Your task to perform on an android device: change the upload size in google photos Image 0: 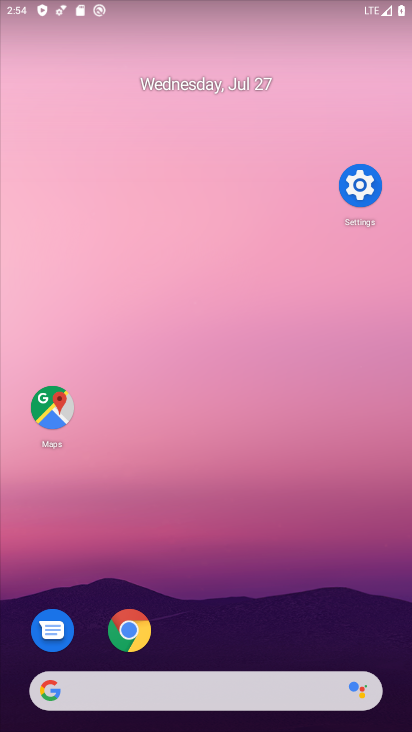
Step 0: press home button
Your task to perform on an android device: change the upload size in google photos Image 1: 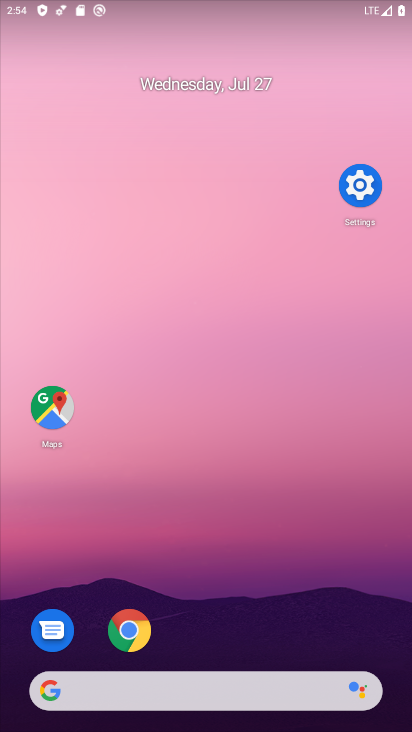
Step 1: drag from (247, 656) to (168, 142)
Your task to perform on an android device: change the upload size in google photos Image 2: 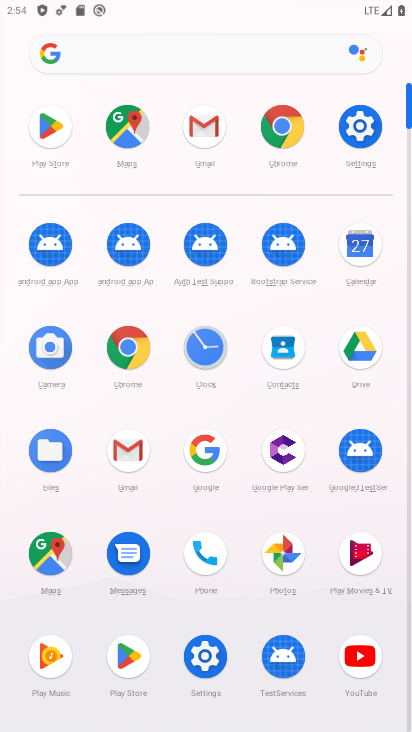
Step 2: click (287, 547)
Your task to perform on an android device: change the upload size in google photos Image 3: 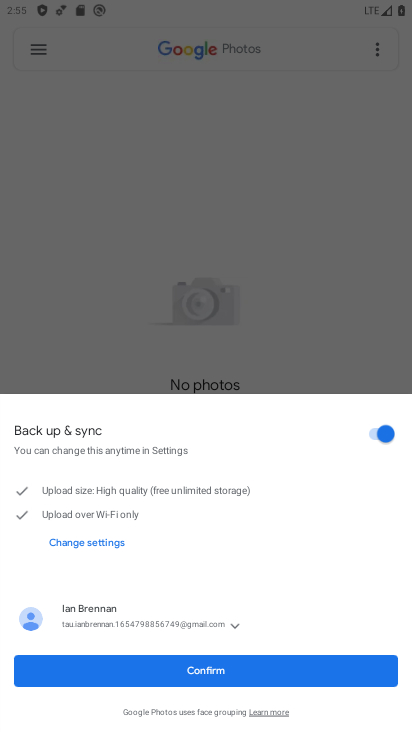
Step 3: click (242, 682)
Your task to perform on an android device: change the upload size in google photos Image 4: 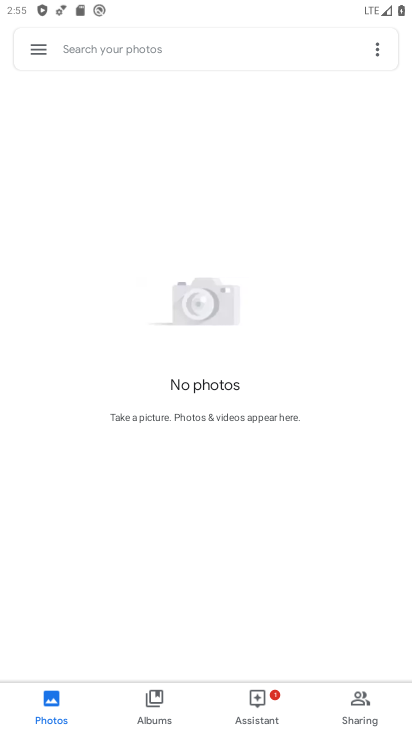
Step 4: click (44, 54)
Your task to perform on an android device: change the upload size in google photos Image 5: 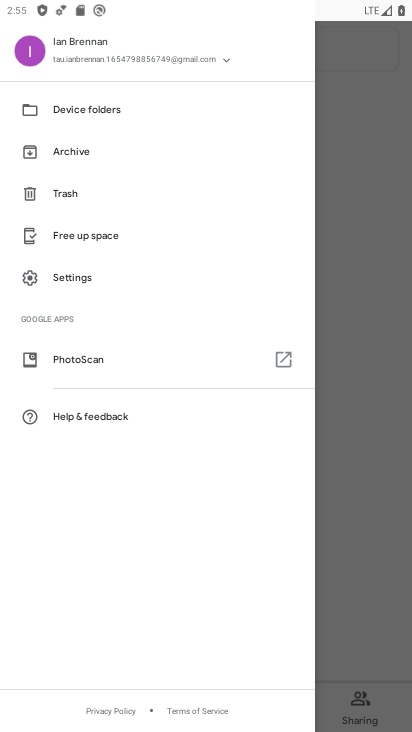
Step 5: click (61, 281)
Your task to perform on an android device: change the upload size in google photos Image 6: 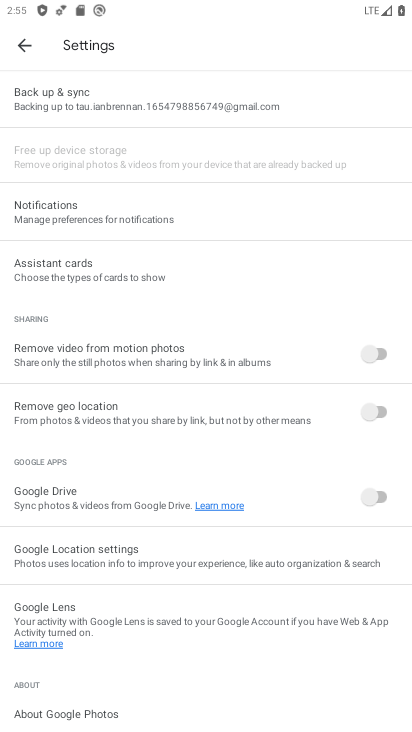
Step 6: click (62, 104)
Your task to perform on an android device: change the upload size in google photos Image 7: 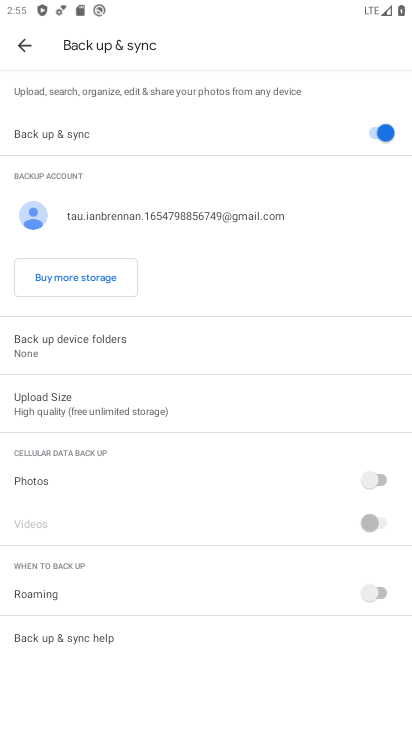
Step 7: click (71, 412)
Your task to perform on an android device: change the upload size in google photos Image 8: 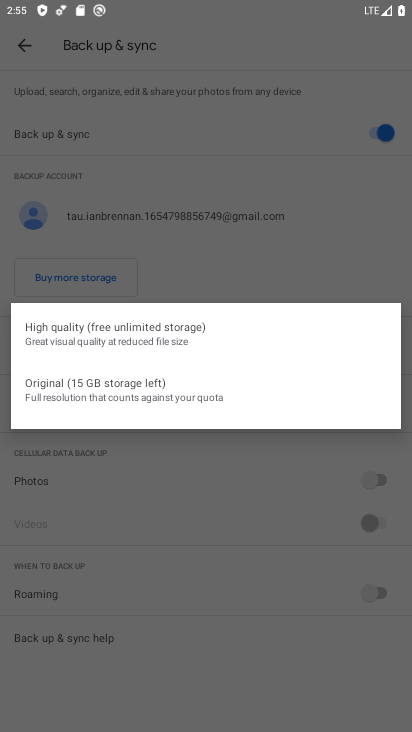
Step 8: click (41, 396)
Your task to perform on an android device: change the upload size in google photos Image 9: 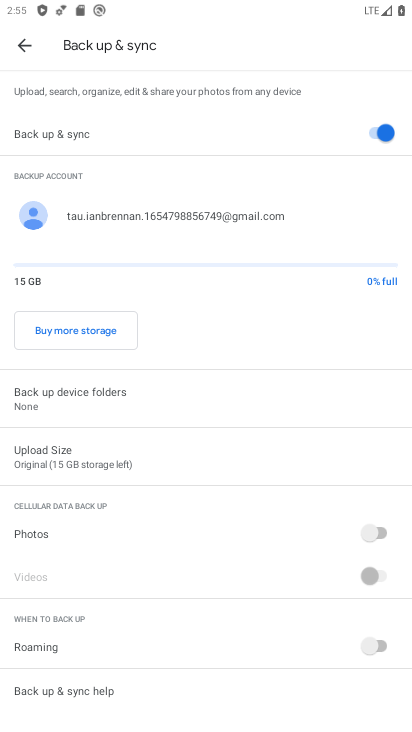
Step 9: task complete